Your task to perform on an android device: toggle sleep mode Image 0: 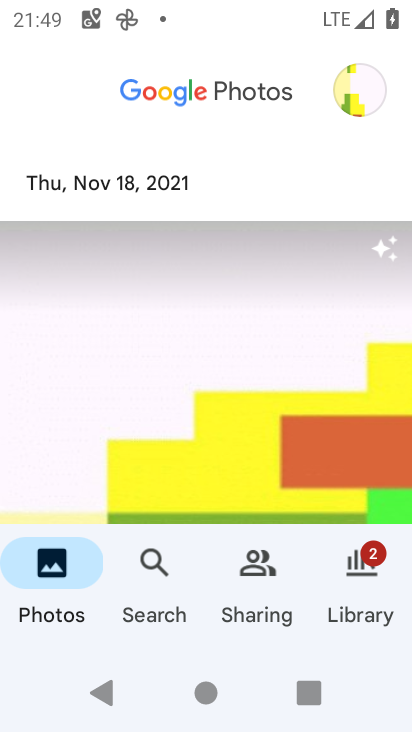
Step 0: press home button
Your task to perform on an android device: toggle sleep mode Image 1: 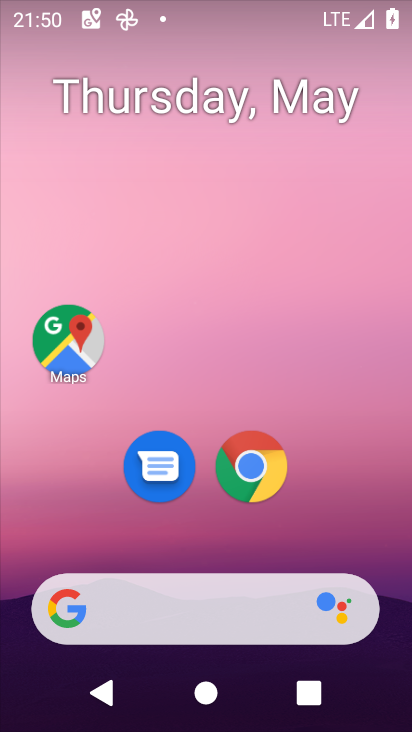
Step 1: drag from (370, 515) to (315, 102)
Your task to perform on an android device: toggle sleep mode Image 2: 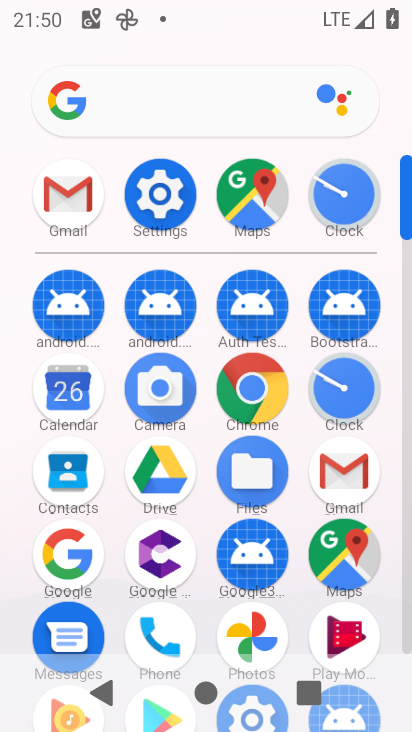
Step 2: click (177, 179)
Your task to perform on an android device: toggle sleep mode Image 3: 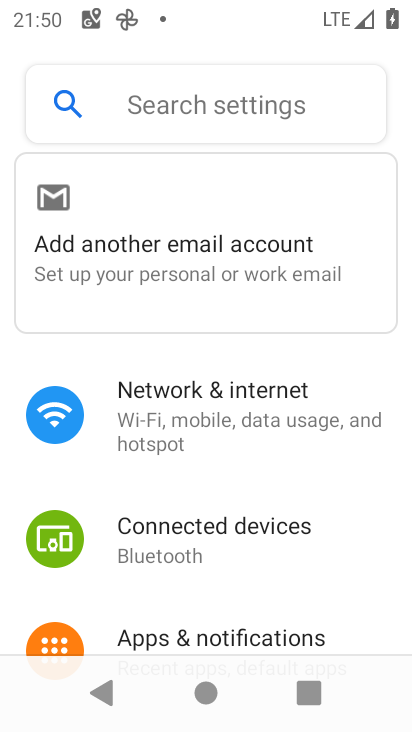
Step 3: drag from (143, 546) to (187, 306)
Your task to perform on an android device: toggle sleep mode Image 4: 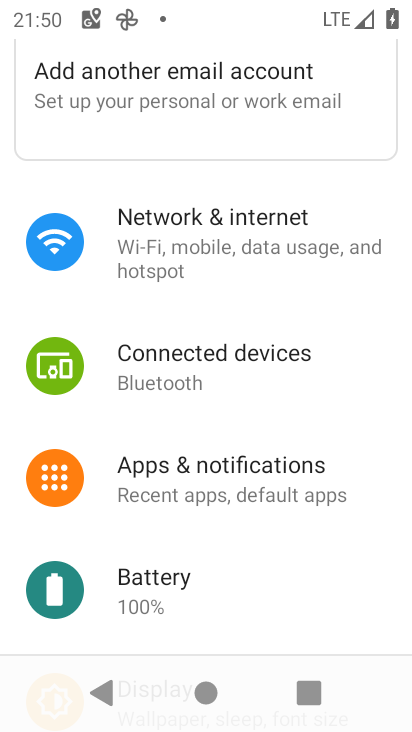
Step 4: drag from (235, 515) to (282, 221)
Your task to perform on an android device: toggle sleep mode Image 5: 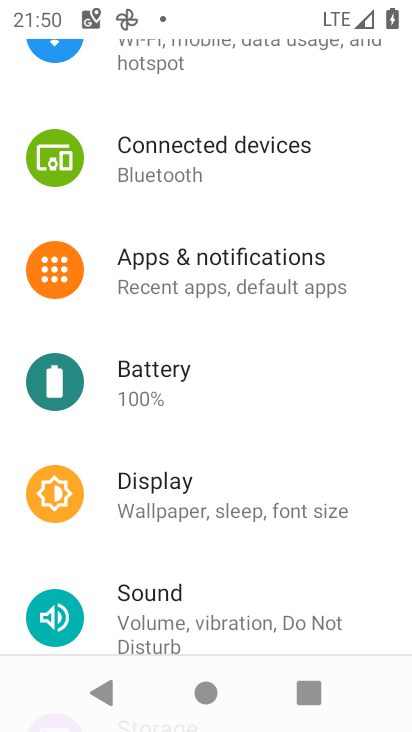
Step 5: click (303, 522)
Your task to perform on an android device: toggle sleep mode Image 6: 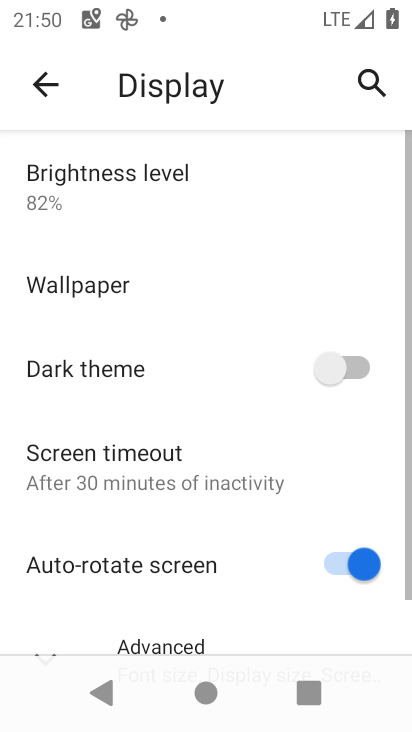
Step 6: drag from (208, 522) to (231, 250)
Your task to perform on an android device: toggle sleep mode Image 7: 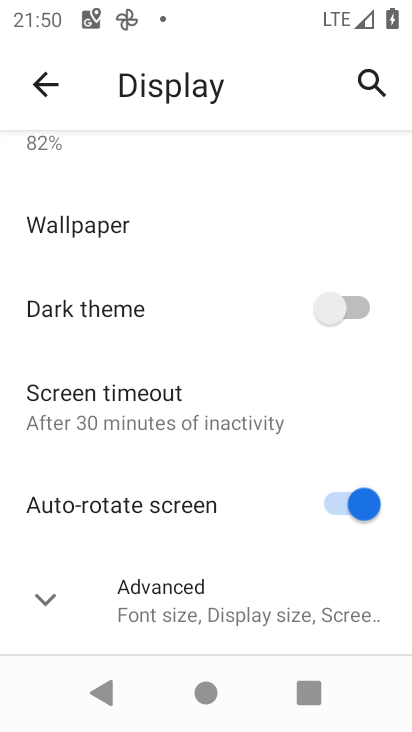
Step 7: click (202, 581)
Your task to perform on an android device: toggle sleep mode Image 8: 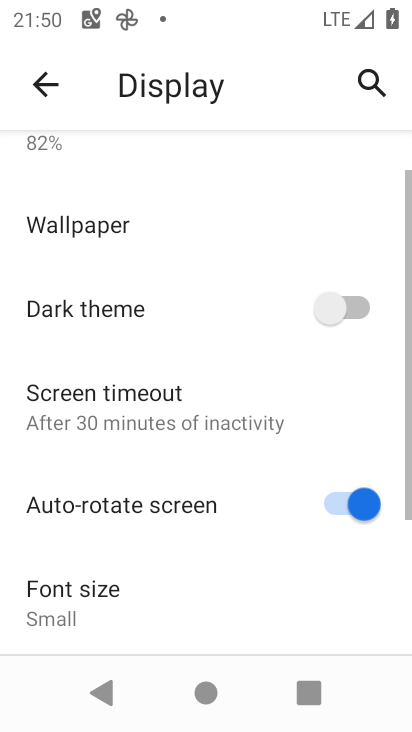
Step 8: drag from (231, 529) to (226, 236)
Your task to perform on an android device: toggle sleep mode Image 9: 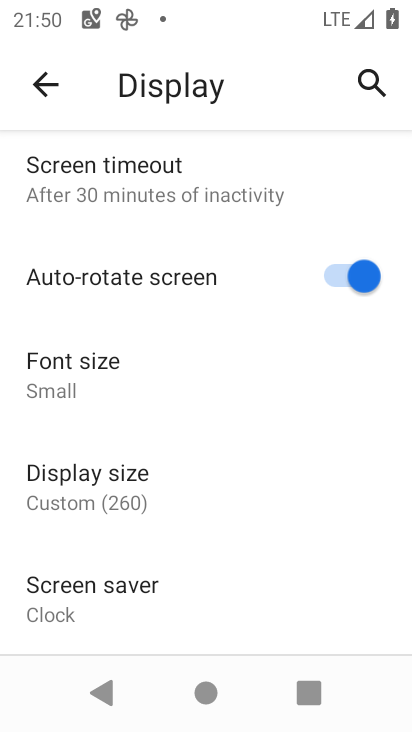
Step 9: click (240, 178)
Your task to perform on an android device: toggle sleep mode Image 10: 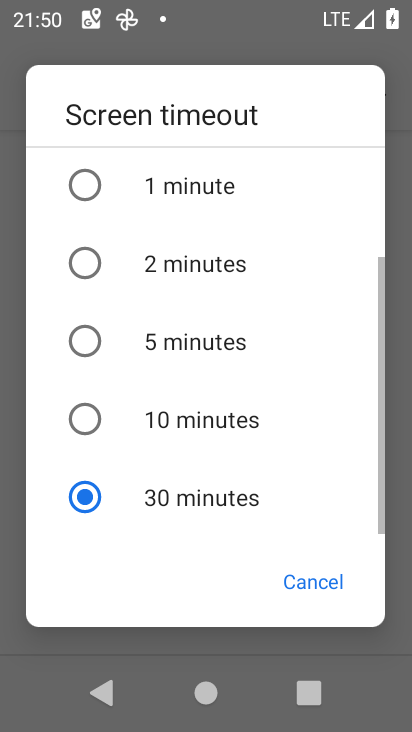
Step 10: click (227, 198)
Your task to perform on an android device: toggle sleep mode Image 11: 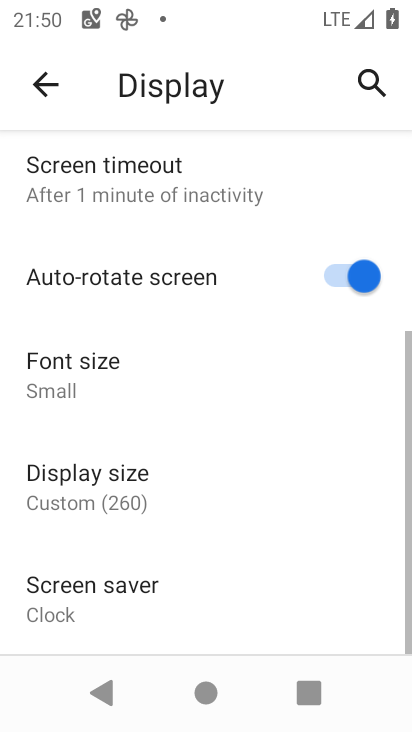
Step 11: task complete